Your task to perform on an android device: open a new tab in the chrome app Image 0: 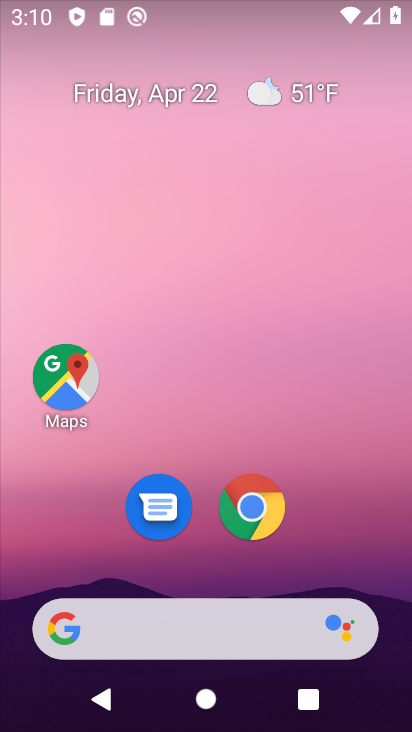
Step 0: drag from (200, 580) to (386, 64)
Your task to perform on an android device: open a new tab in the chrome app Image 1: 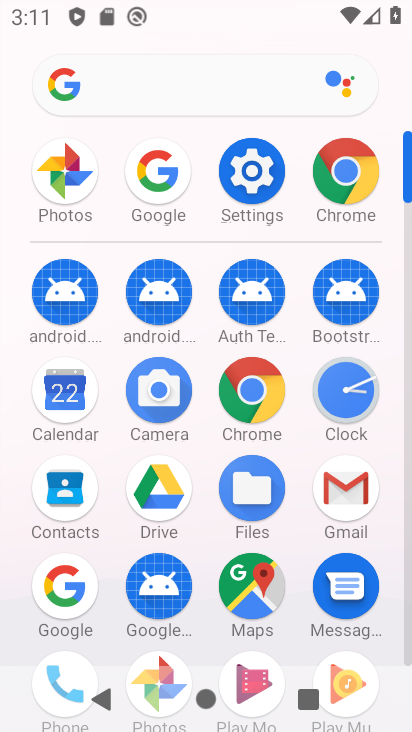
Step 1: click (242, 400)
Your task to perform on an android device: open a new tab in the chrome app Image 2: 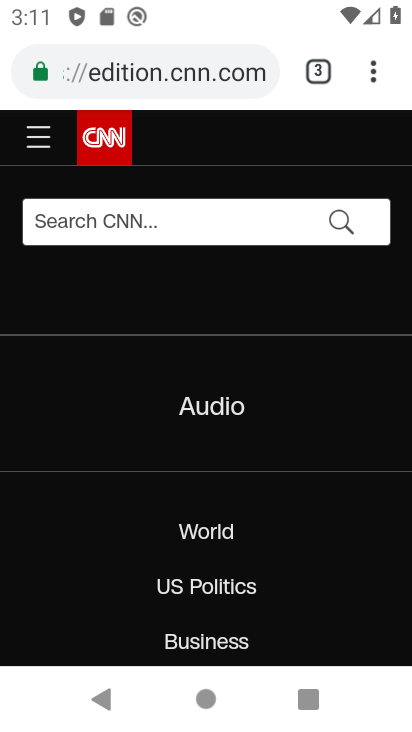
Step 2: click (320, 76)
Your task to perform on an android device: open a new tab in the chrome app Image 3: 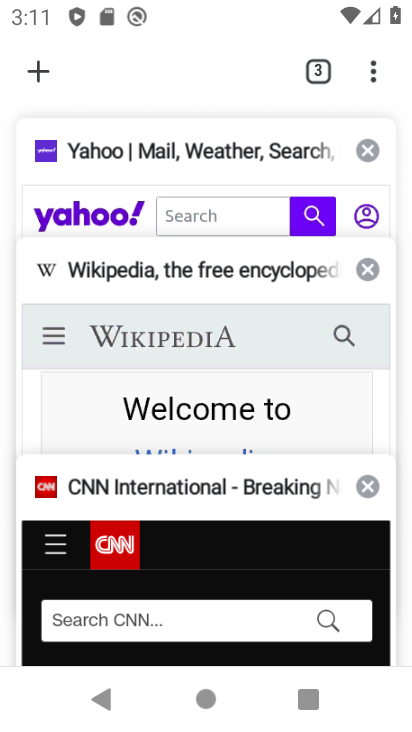
Step 3: click (45, 66)
Your task to perform on an android device: open a new tab in the chrome app Image 4: 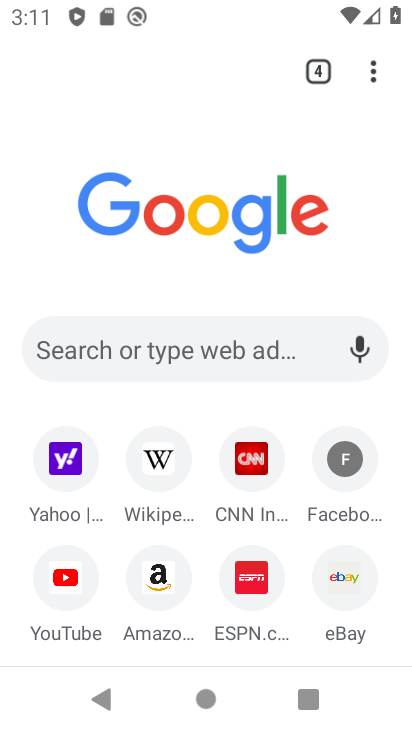
Step 4: task complete